Your task to perform on an android device: Empty the shopping cart on walmart.com. Add corsair k70 to the cart on walmart.com Image 0: 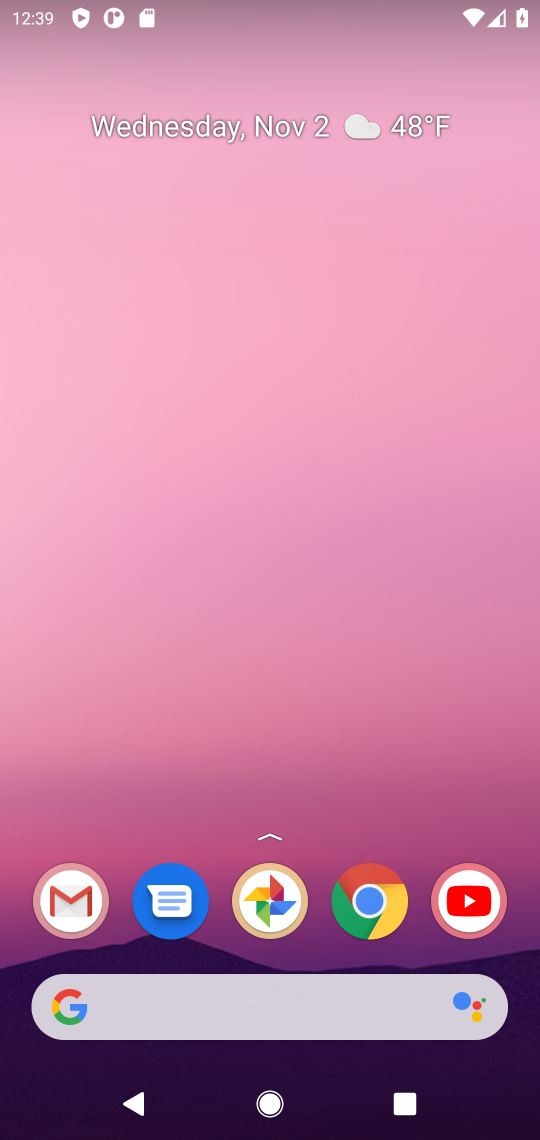
Step 0: drag from (304, 951) to (310, 213)
Your task to perform on an android device: Empty the shopping cart on walmart.com. Add corsair k70 to the cart on walmart.com Image 1: 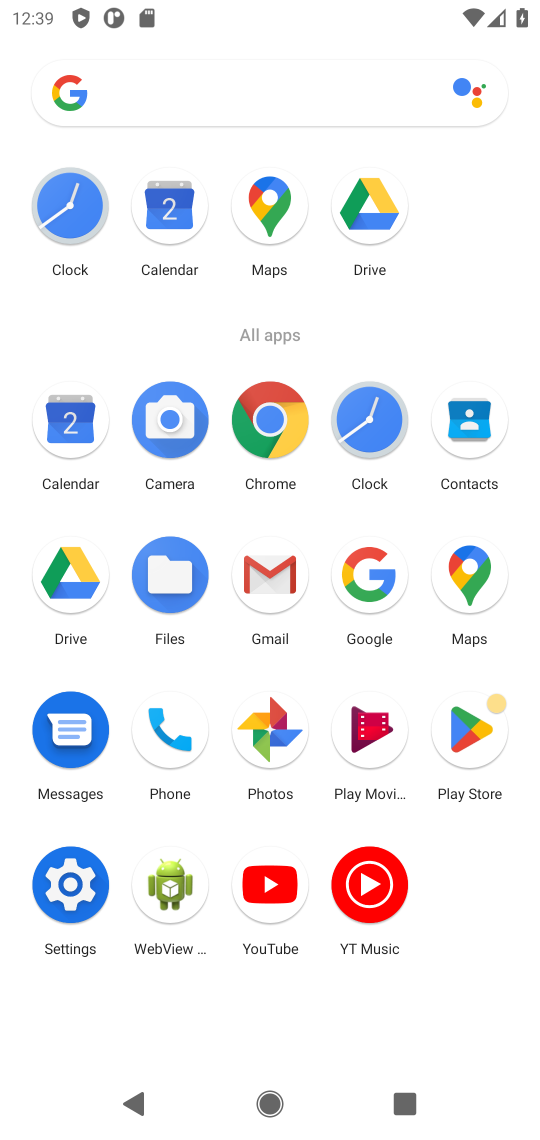
Step 1: click (269, 415)
Your task to perform on an android device: Empty the shopping cart on walmart.com. Add corsair k70 to the cart on walmart.com Image 2: 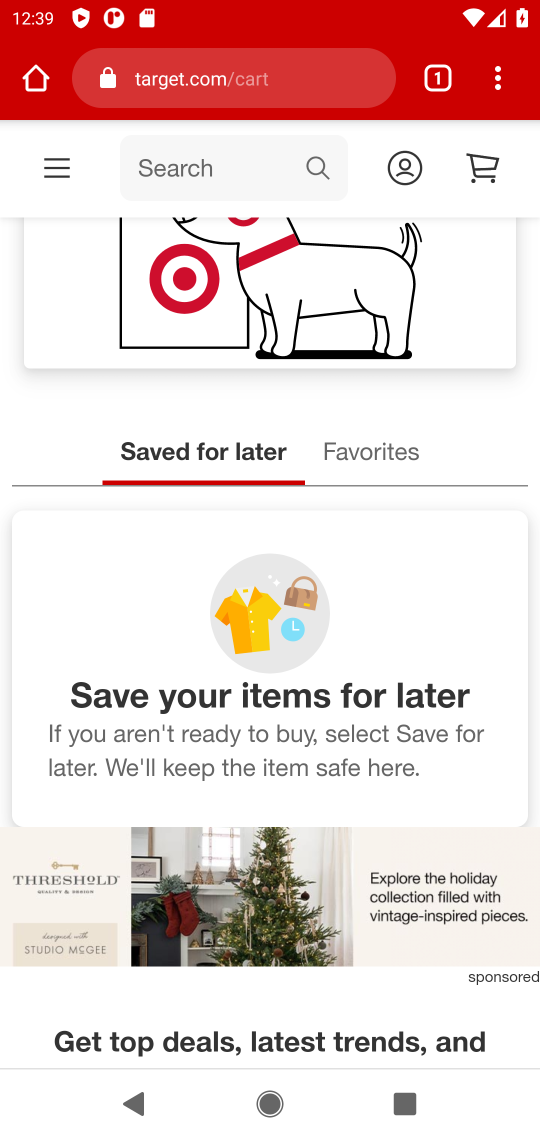
Step 2: click (253, 69)
Your task to perform on an android device: Empty the shopping cart on walmart.com. Add corsair k70 to the cart on walmart.com Image 3: 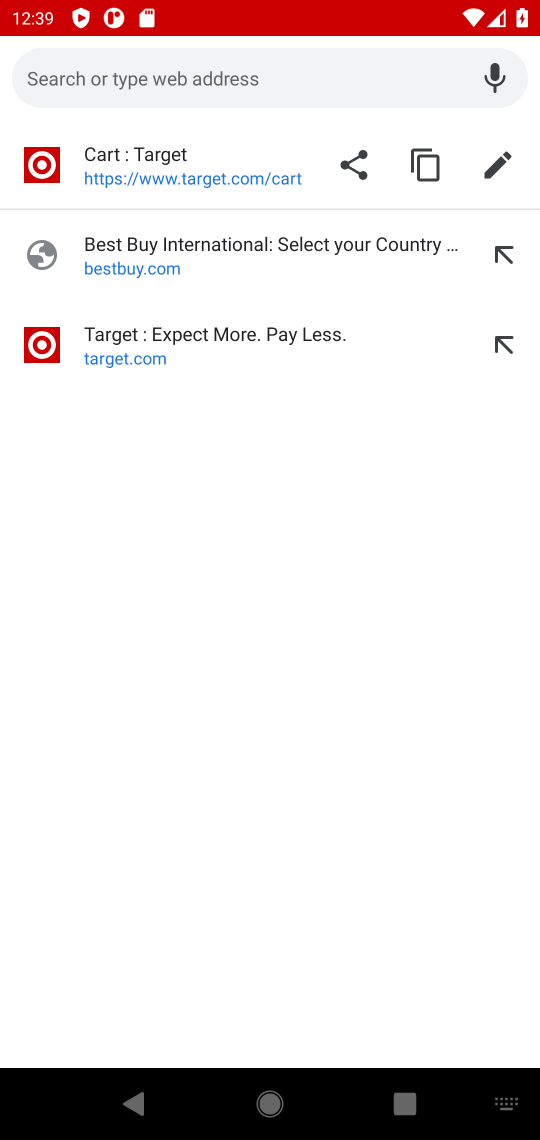
Step 3: type "walmart.com"
Your task to perform on an android device: Empty the shopping cart on walmart.com. Add corsair k70 to the cart on walmart.com Image 4: 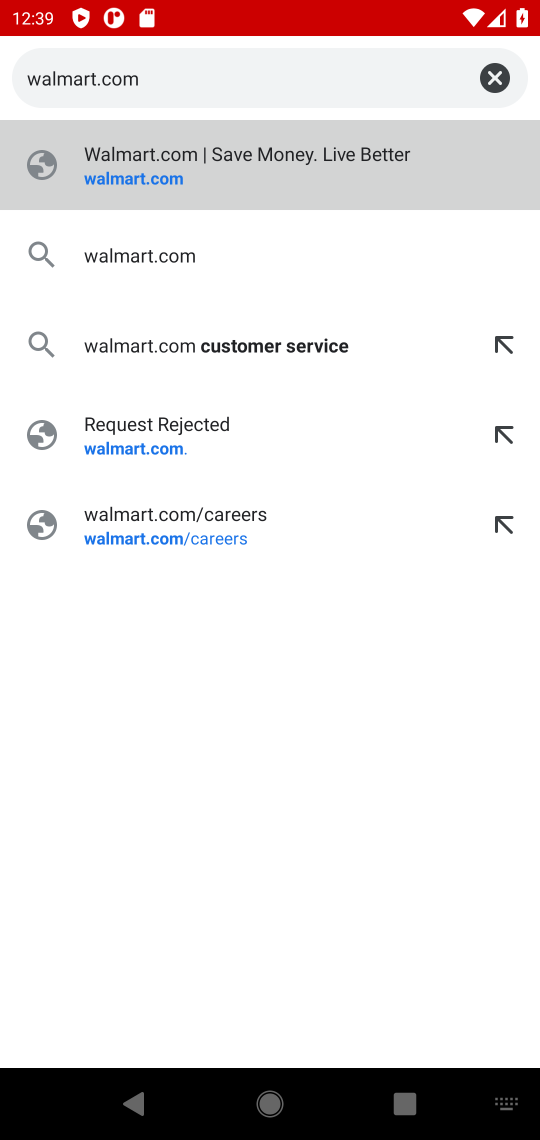
Step 4: press enter
Your task to perform on an android device: Empty the shopping cart on walmart.com. Add corsair k70 to the cart on walmart.com Image 5: 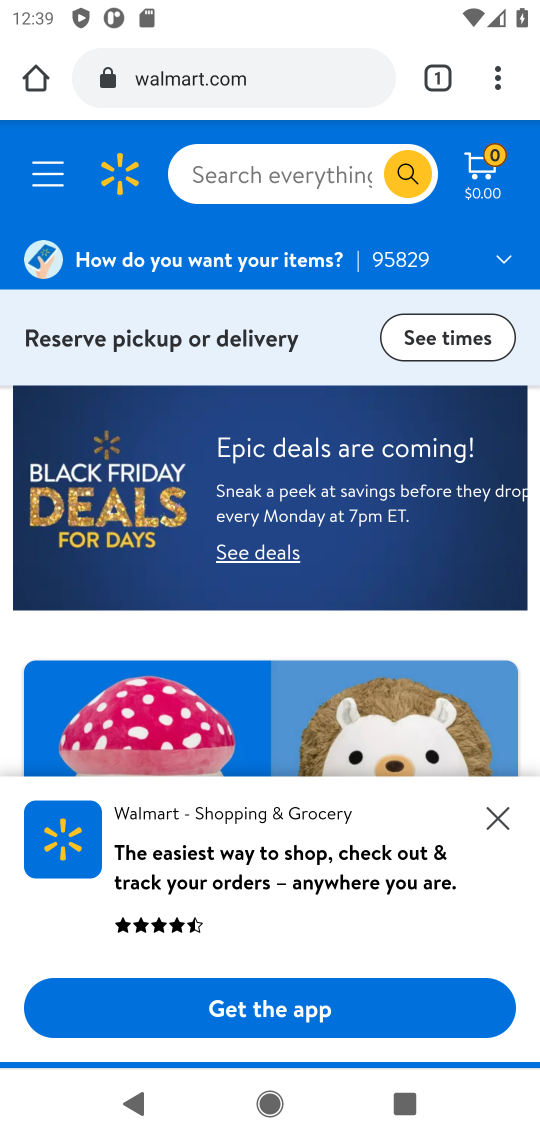
Step 5: click (492, 178)
Your task to perform on an android device: Empty the shopping cart on walmart.com. Add corsair k70 to the cart on walmart.com Image 6: 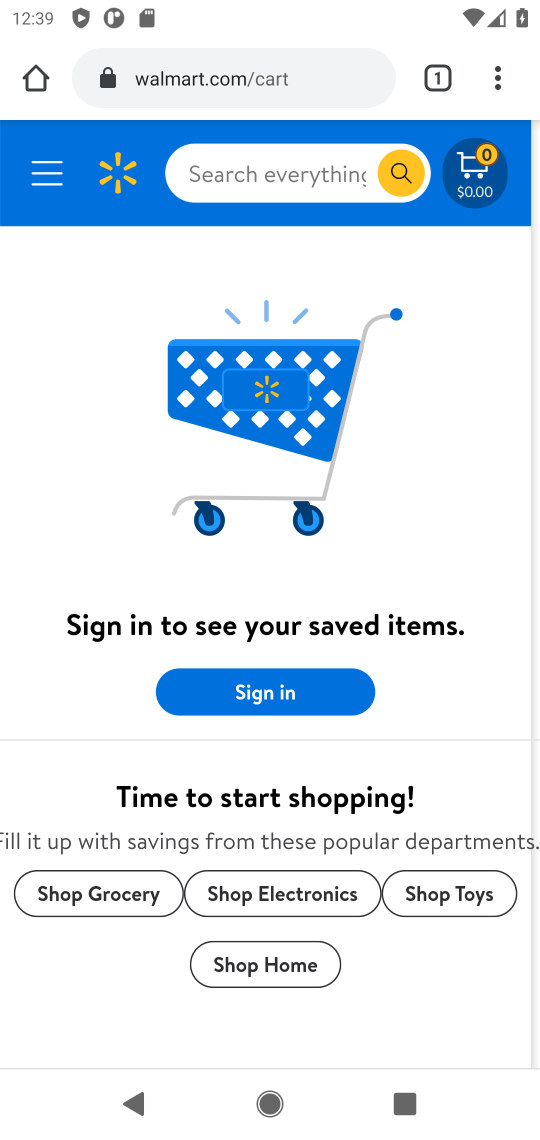
Step 6: click (288, 167)
Your task to perform on an android device: Empty the shopping cart on walmart.com. Add corsair k70 to the cart on walmart.com Image 7: 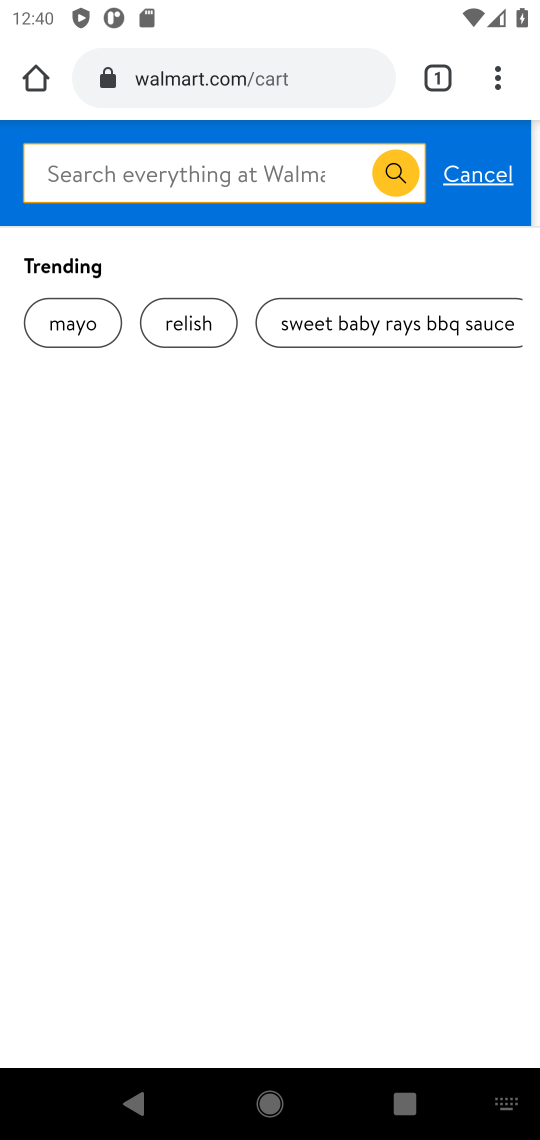
Step 7: type "corsair k70"
Your task to perform on an android device: Empty the shopping cart on walmart.com. Add corsair k70 to the cart on walmart.com Image 8: 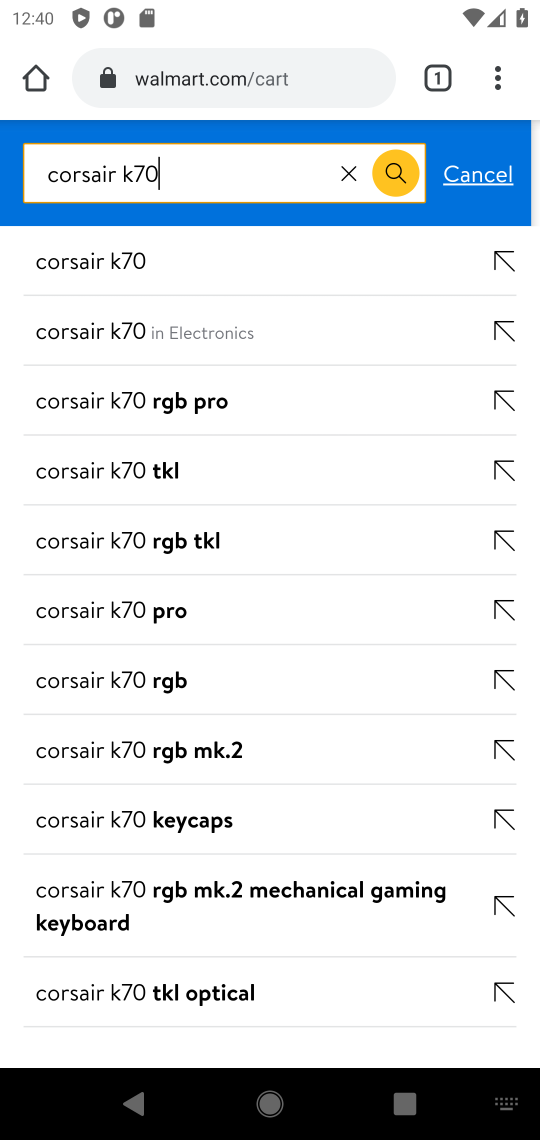
Step 8: press enter
Your task to perform on an android device: Empty the shopping cart on walmart.com. Add corsair k70 to the cart on walmart.com Image 9: 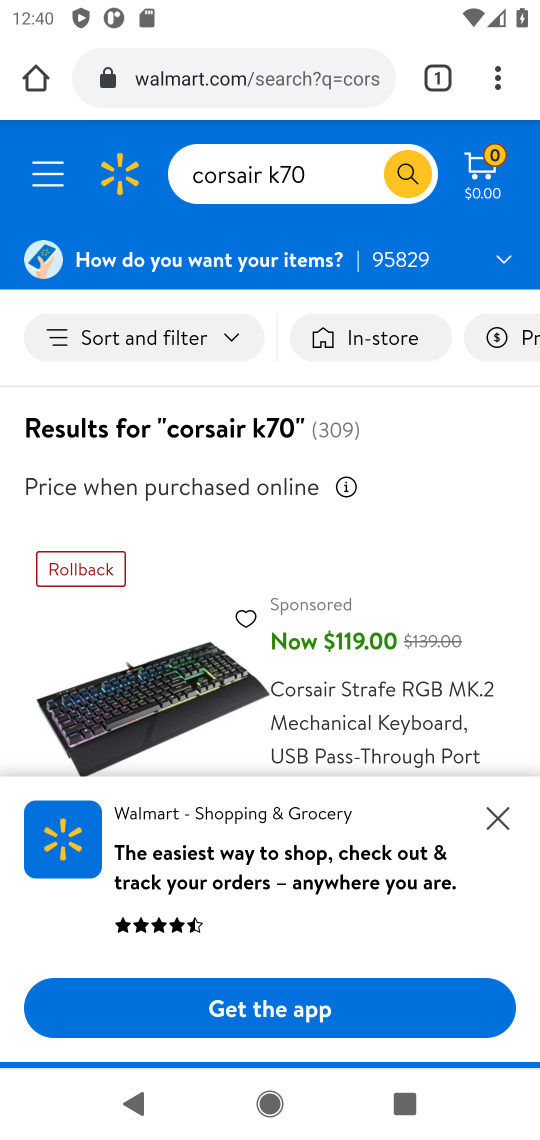
Step 9: drag from (351, 705) to (266, 191)
Your task to perform on an android device: Empty the shopping cart on walmart.com. Add corsair k70 to the cart on walmart.com Image 10: 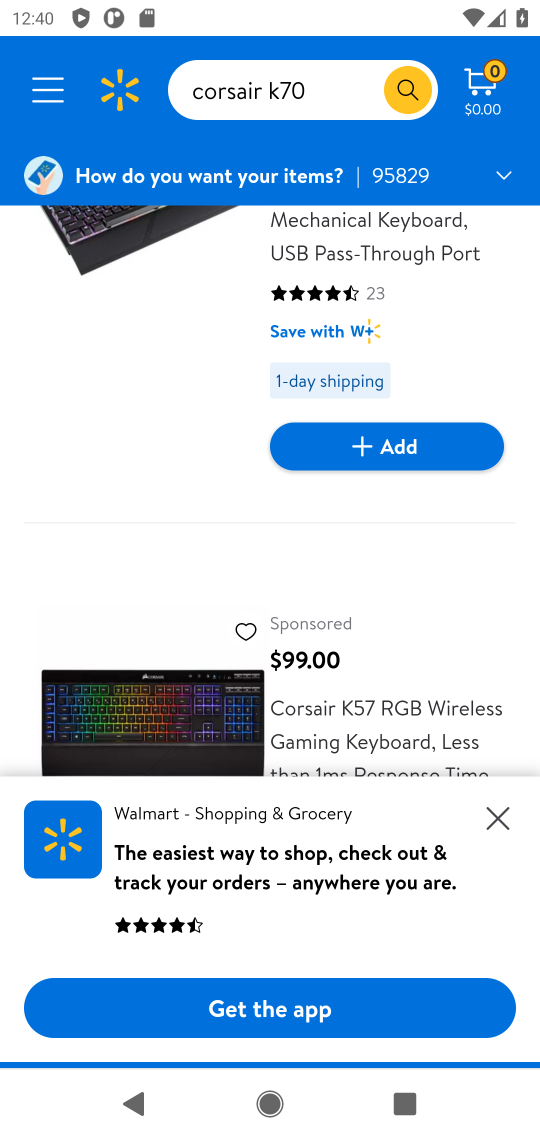
Step 10: drag from (393, 768) to (299, 265)
Your task to perform on an android device: Empty the shopping cart on walmart.com. Add corsair k70 to the cart on walmart.com Image 11: 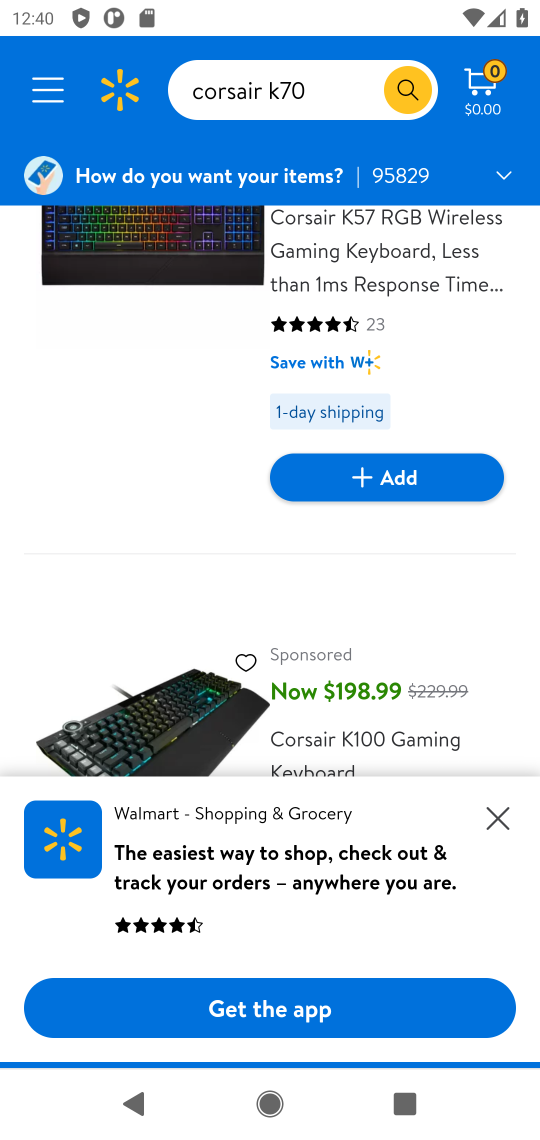
Step 11: drag from (416, 742) to (211, 260)
Your task to perform on an android device: Empty the shopping cart on walmart.com. Add corsair k70 to the cart on walmart.com Image 12: 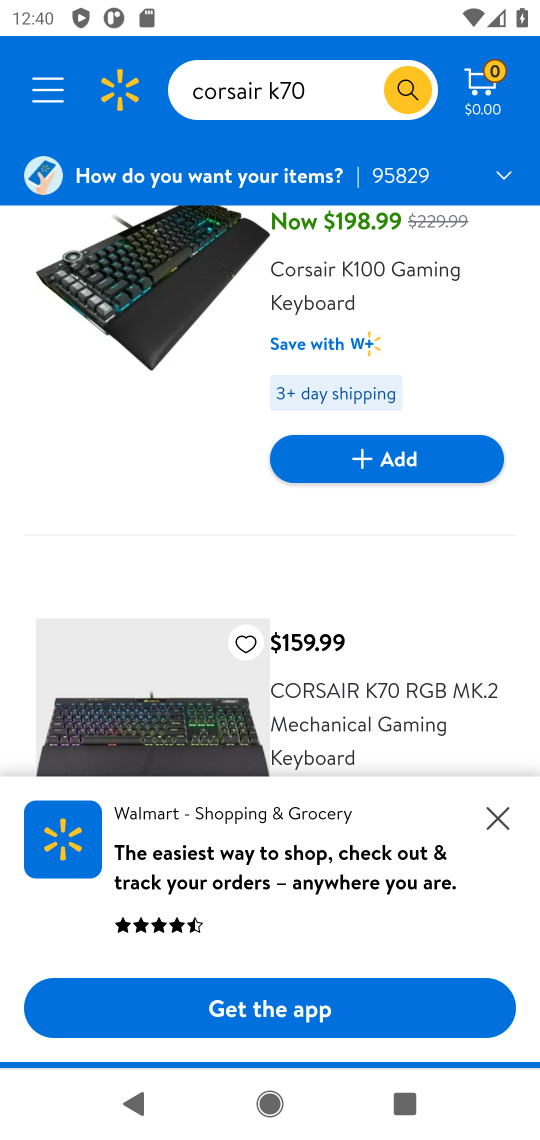
Step 12: drag from (429, 737) to (285, 359)
Your task to perform on an android device: Empty the shopping cart on walmart.com. Add corsair k70 to the cart on walmart.com Image 13: 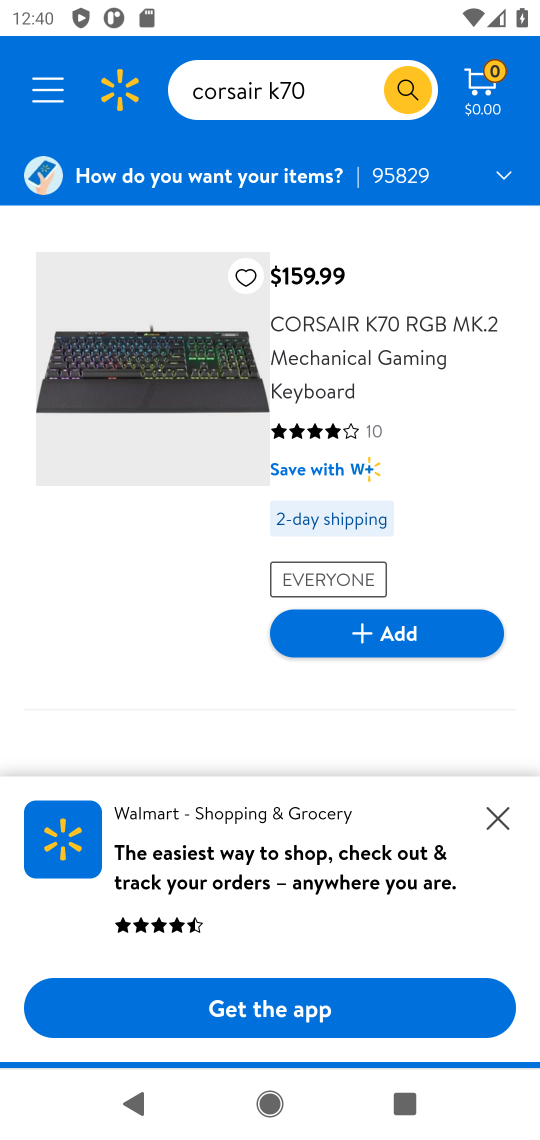
Step 13: click (368, 621)
Your task to perform on an android device: Empty the shopping cart on walmart.com. Add corsair k70 to the cart on walmart.com Image 14: 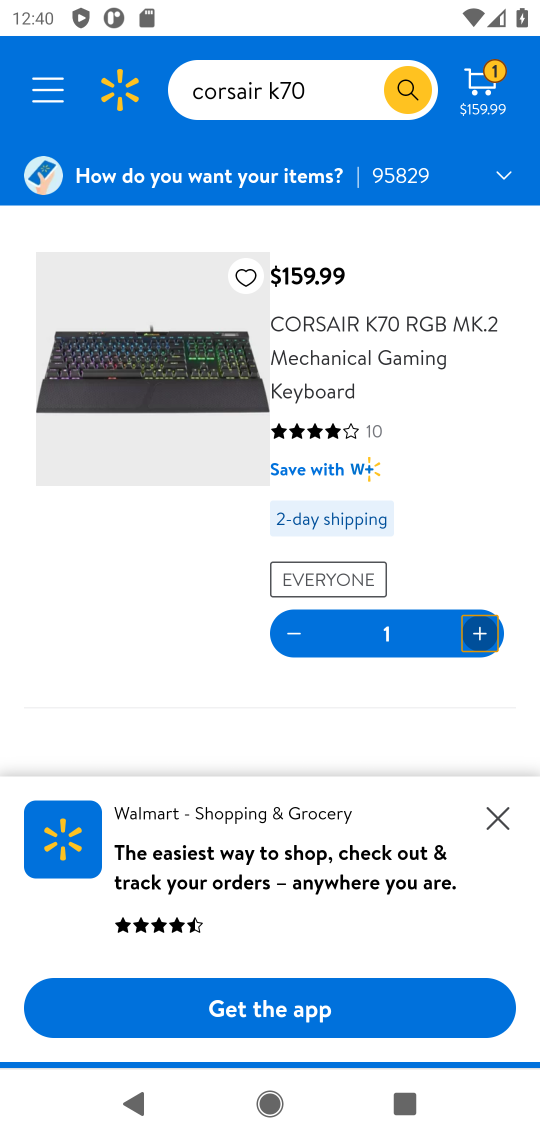
Step 14: task complete